Your task to perform on an android device: Empty the shopping cart on amazon.com. Add "usb-c to usb-a" to the cart on amazon.com Image 0: 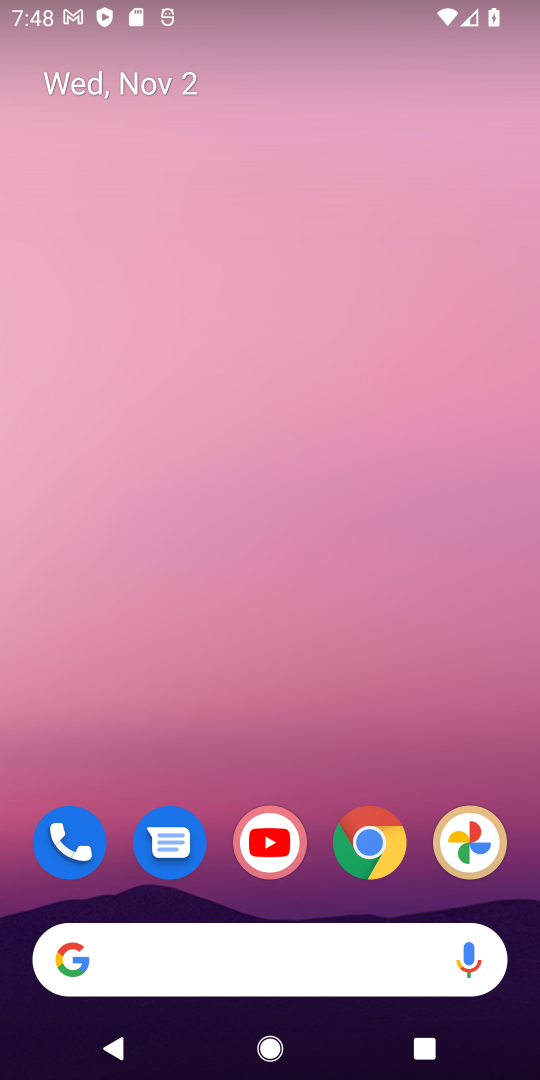
Step 0: drag from (237, 851) to (235, 120)
Your task to perform on an android device: Empty the shopping cart on amazon.com. Add "usb-c to usb-a" to the cart on amazon.com Image 1: 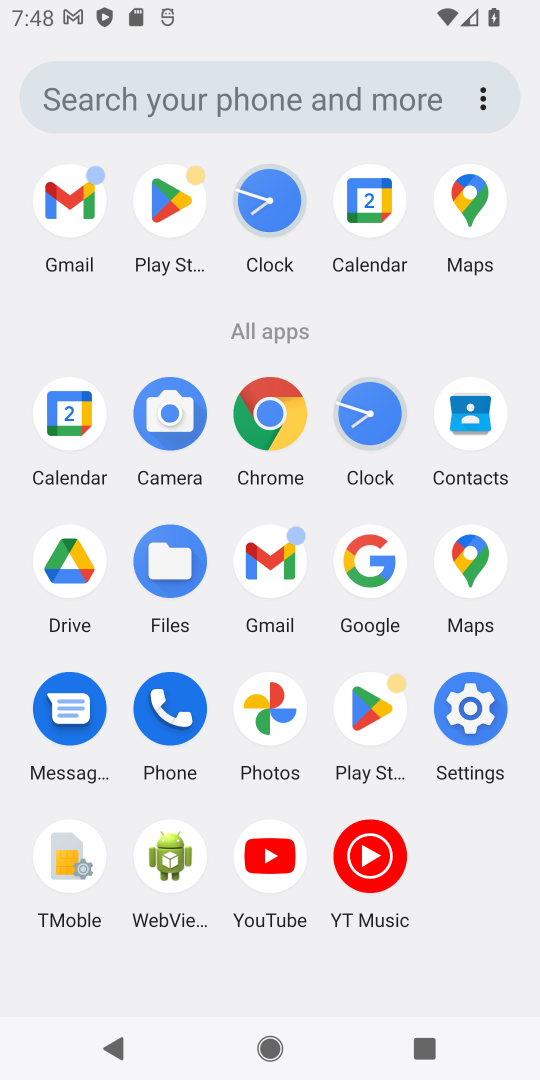
Step 1: click (369, 565)
Your task to perform on an android device: Empty the shopping cart on amazon.com. Add "usb-c to usb-a" to the cart on amazon.com Image 2: 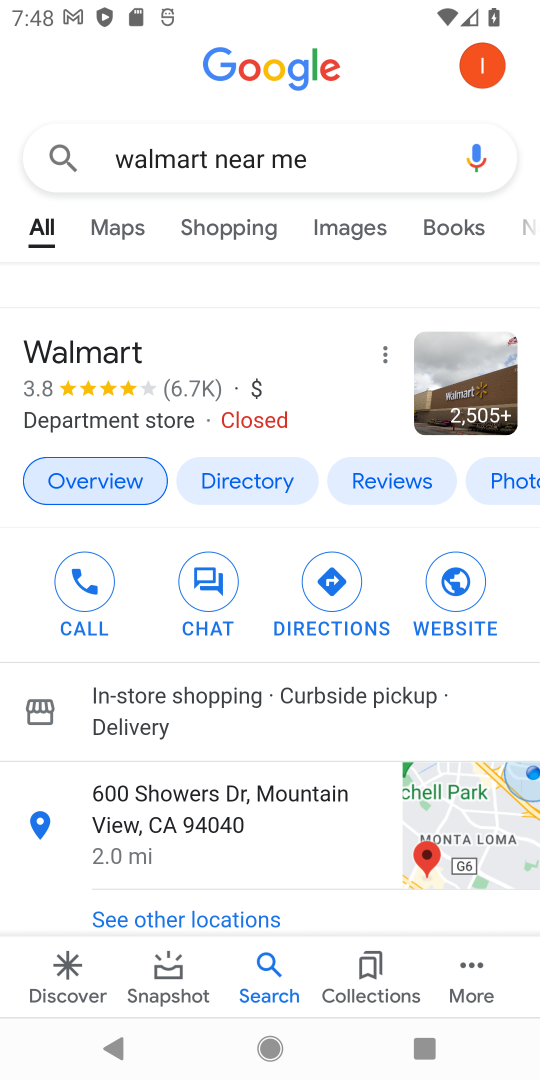
Step 2: click (273, 151)
Your task to perform on an android device: Empty the shopping cart on amazon.com. Add "usb-c to usb-a" to the cart on amazon.com Image 3: 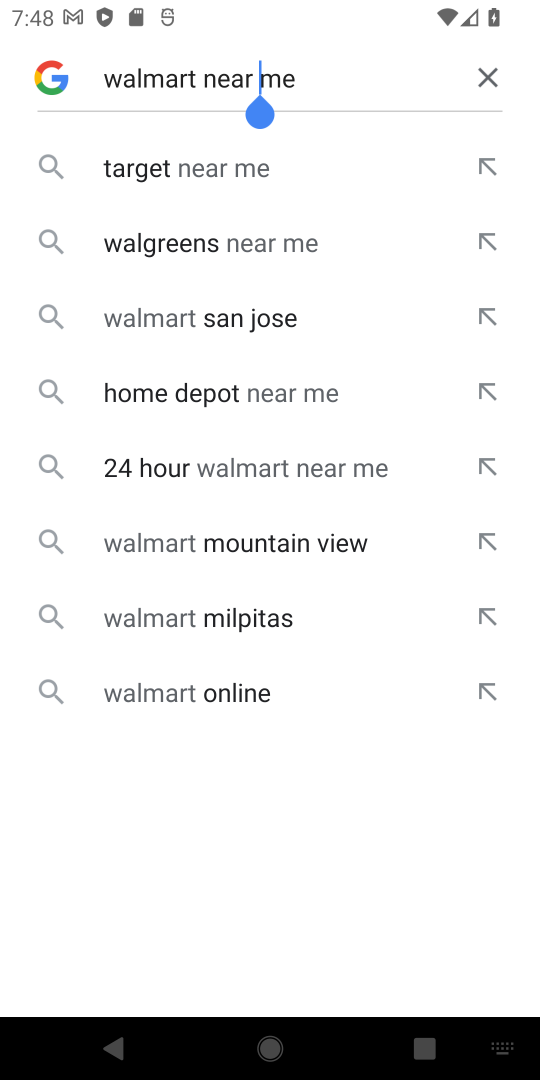
Step 3: click (491, 81)
Your task to perform on an android device: Empty the shopping cart on amazon.com. Add "usb-c to usb-a" to the cart on amazon.com Image 4: 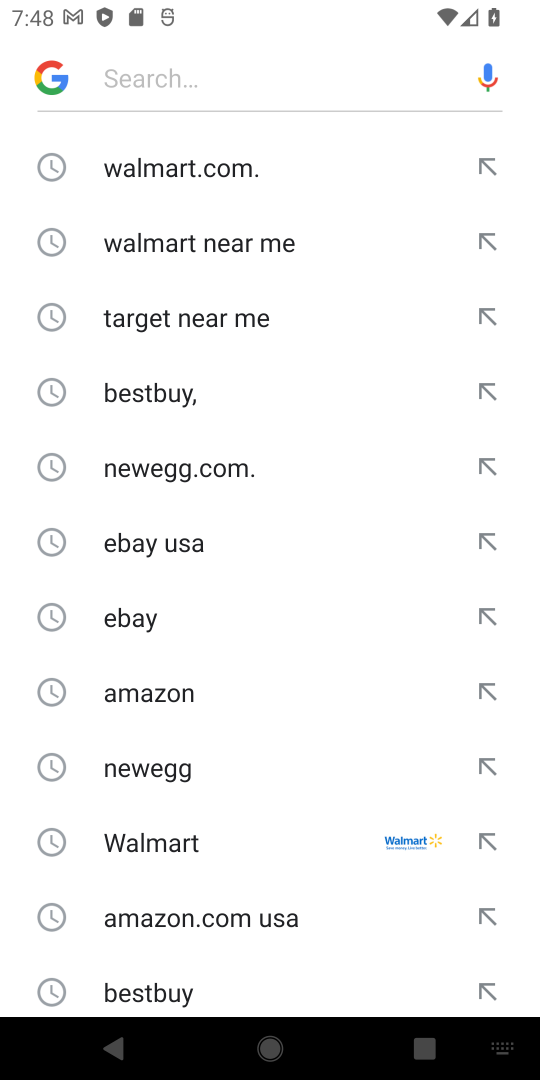
Step 4: click (102, 74)
Your task to perform on an android device: Empty the shopping cart on amazon.com. Add "usb-c to usb-a" to the cart on amazon.com Image 5: 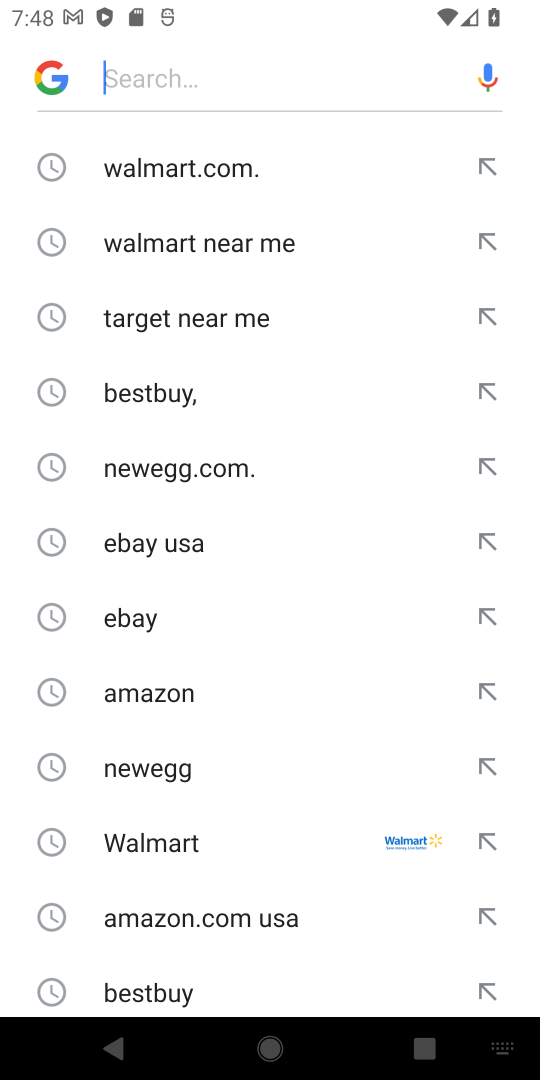
Step 5: type "amazon "
Your task to perform on an android device: Empty the shopping cart on amazon.com. Add "usb-c to usb-a" to the cart on amazon.com Image 6: 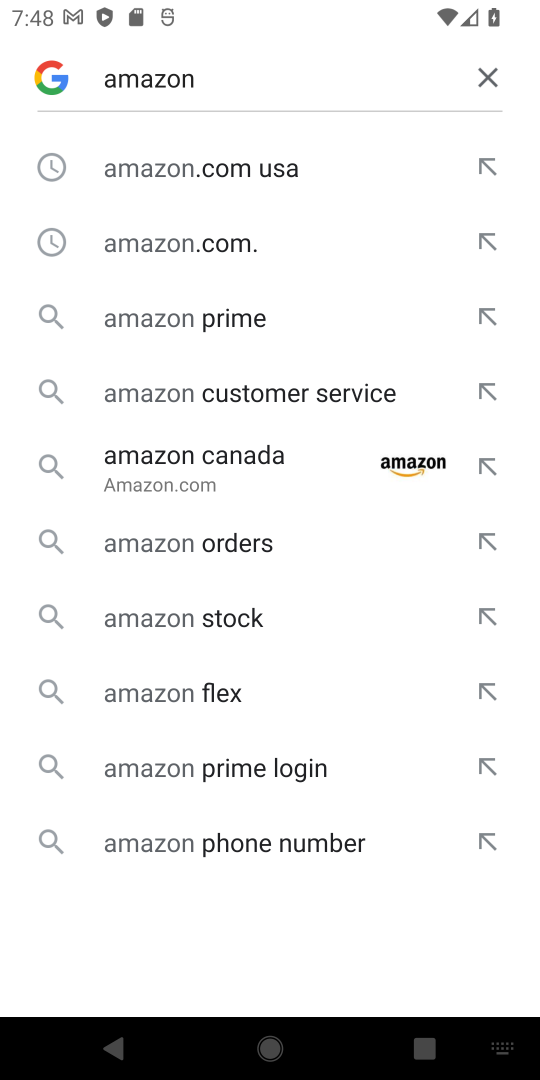
Step 6: click (253, 180)
Your task to perform on an android device: Empty the shopping cart on amazon.com. Add "usb-c to usb-a" to the cart on amazon.com Image 7: 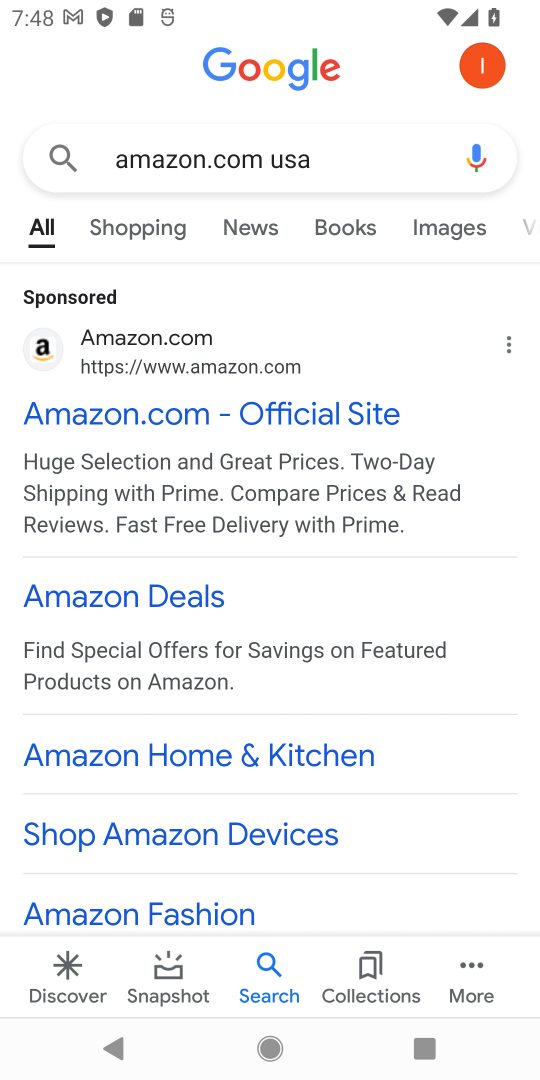
Step 7: click (184, 401)
Your task to perform on an android device: Empty the shopping cart on amazon.com. Add "usb-c to usb-a" to the cart on amazon.com Image 8: 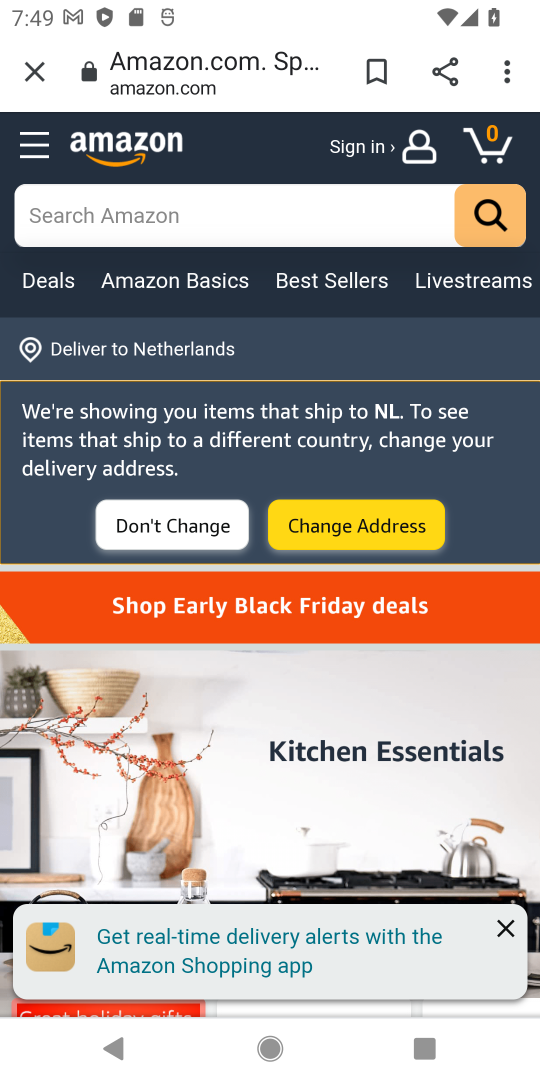
Step 8: click (508, 925)
Your task to perform on an android device: Empty the shopping cart on amazon.com. Add "usb-c to usb-a" to the cart on amazon.com Image 9: 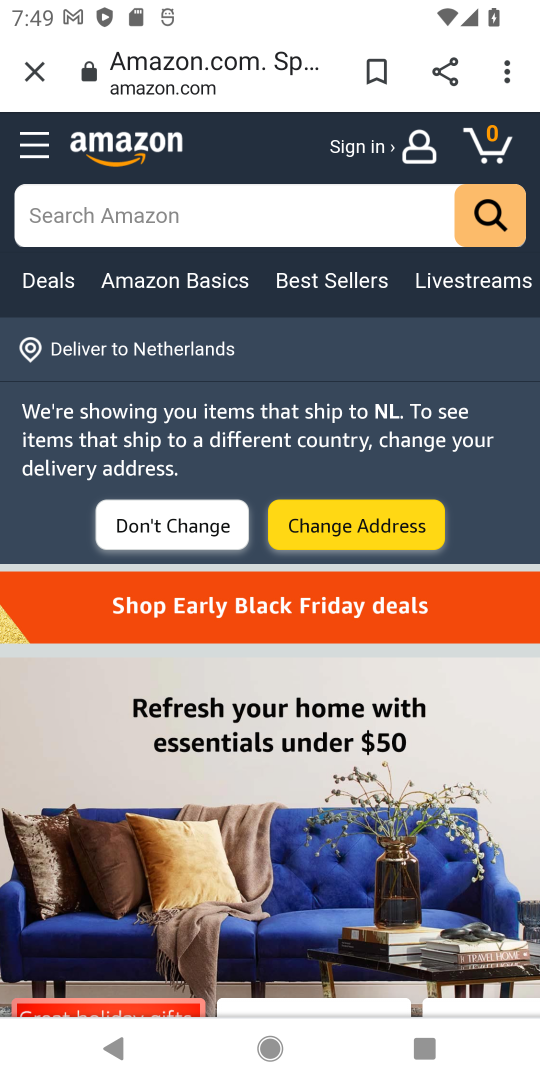
Step 9: click (206, 199)
Your task to perform on an android device: Empty the shopping cart on amazon.com. Add "usb-c to usb-a" to the cart on amazon.com Image 10: 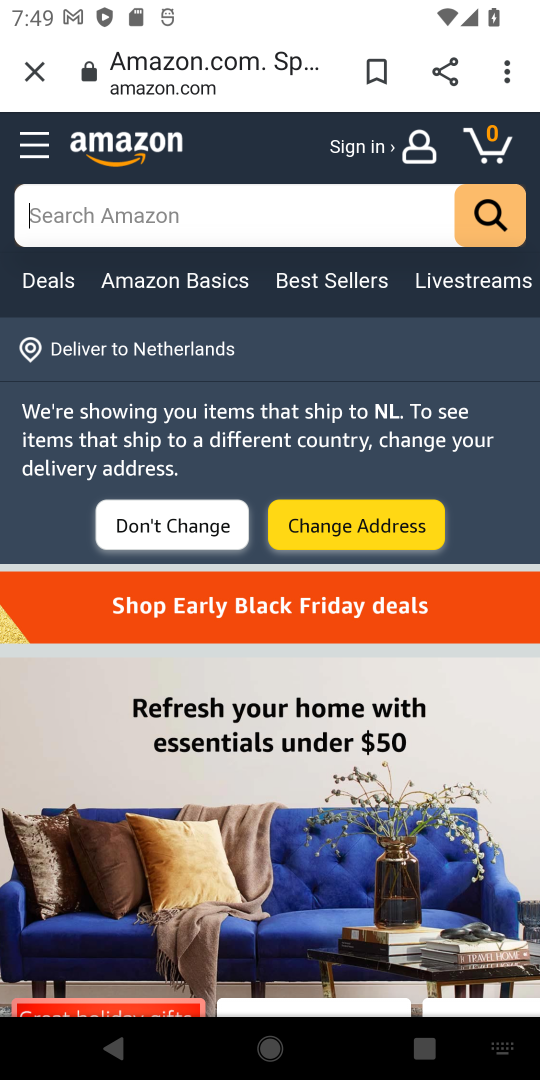
Step 10: type "usb-c to usb-a "
Your task to perform on an android device: Empty the shopping cart on amazon.com. Add "usb-c to usb-a" to the cart on amazon.com Image 11: 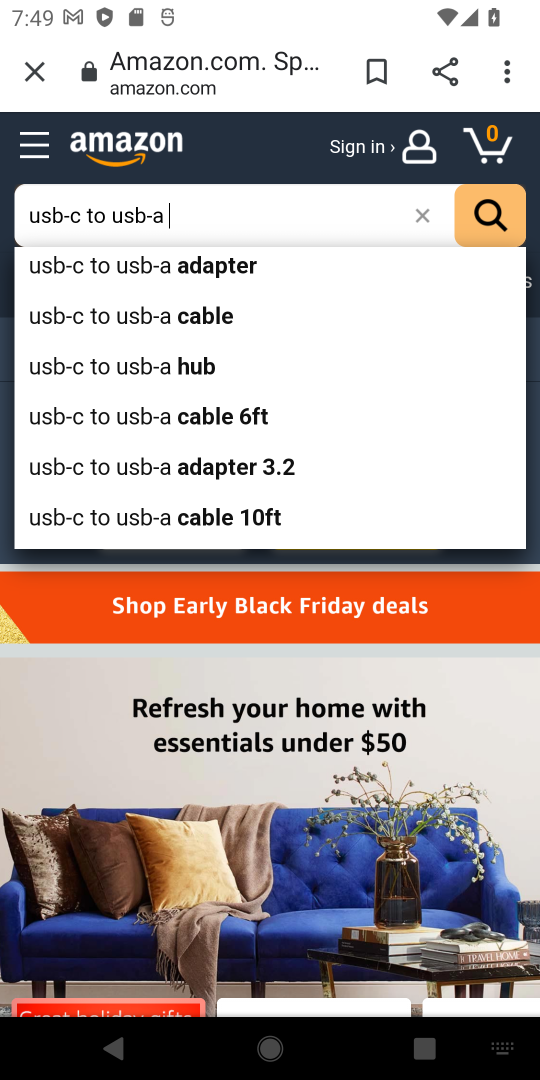
Step 11: click (236, 325)
Your task to perform on an android device: Empty the shopping cart on amazon.com. Add "usb-c to usb-a" to the cart on amazon.com Image 12: 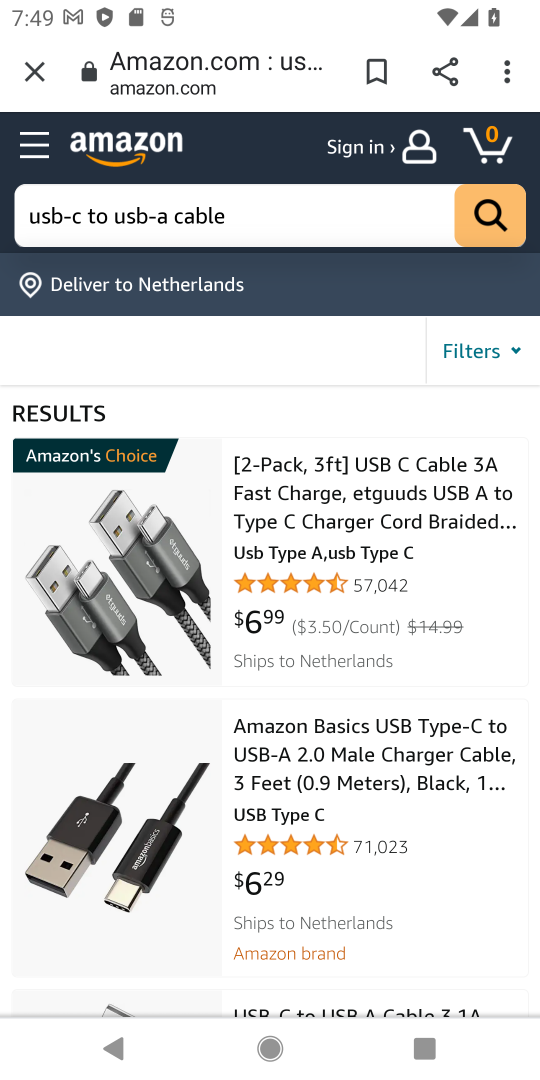
Step 12: click (281, 512)
Your task to perform on an android device: Empty the shopping cart on amazon.com. Add "usb-c to usb-a" to the cart on amazon.com Image 13: 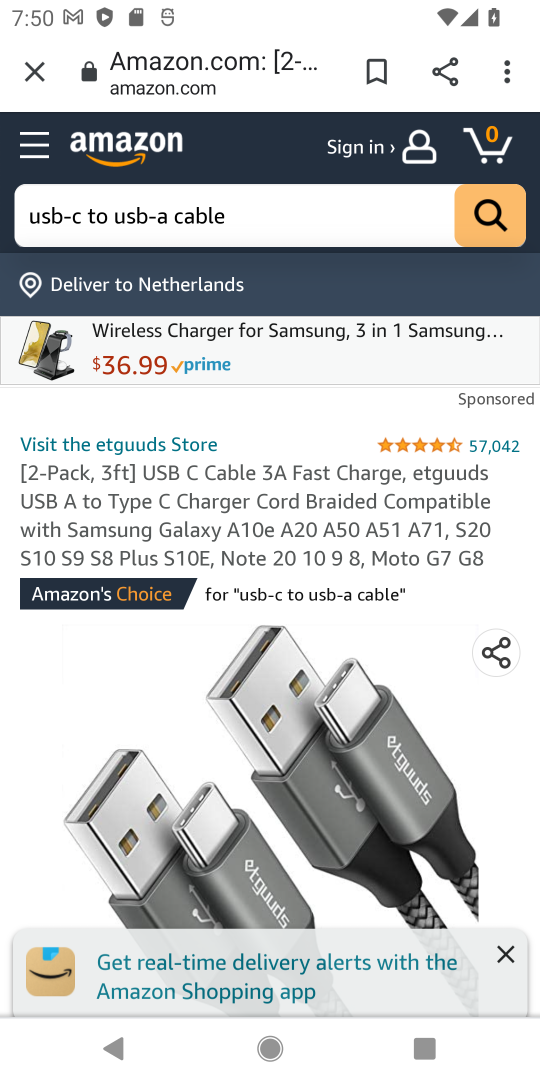
Step 13: drag from (332, 839) to (308, 286)
Your task to perform on an android device: Empty the shopping cart on amazon.com. Add "usb-c to usb-a" to the cart on amazon.com Image 14: 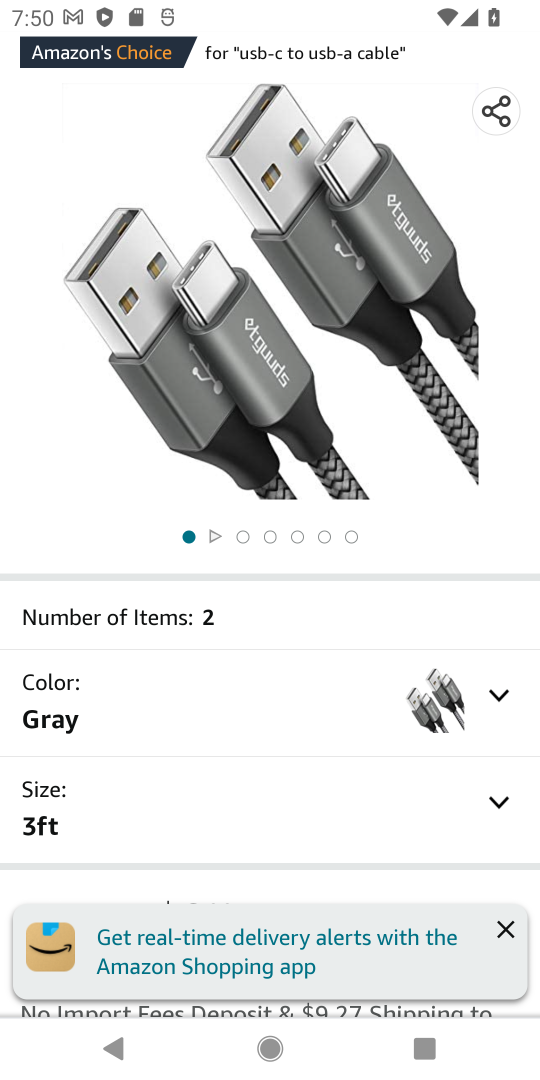
Step 14: click (506, 923)
Your task to perform on an android device: Empty the shopping cart on amazon.com. Add "usb-c to usb-a" to the cart on amazon.com Image 15: 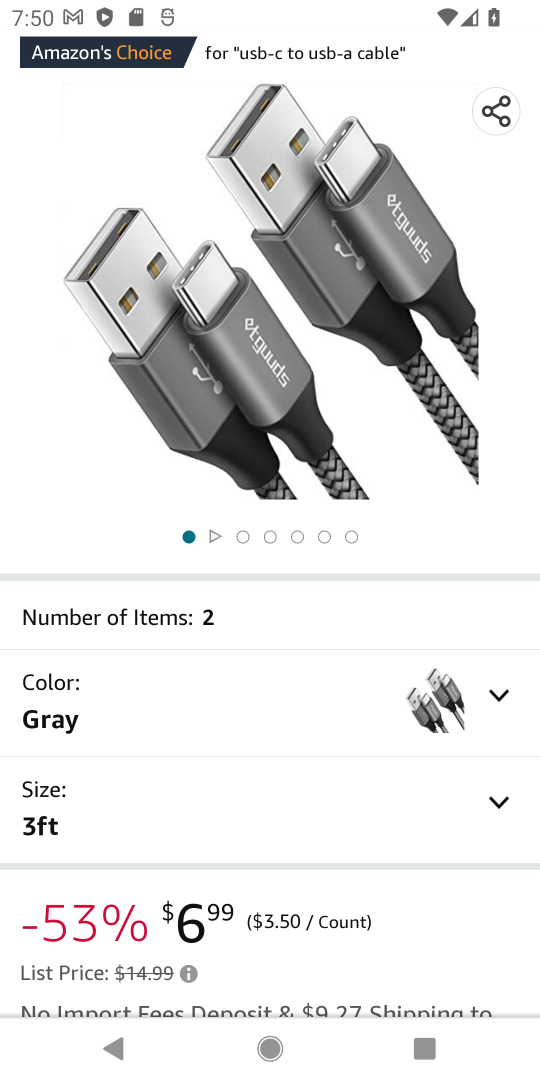
Step 15: drag from (285, 923) to (295, 356)
Your task to perform on an android device: Empty the shopping cart on amazon.com. Add "usb-c to usb-a" to the cart on amazon.com Image 16: 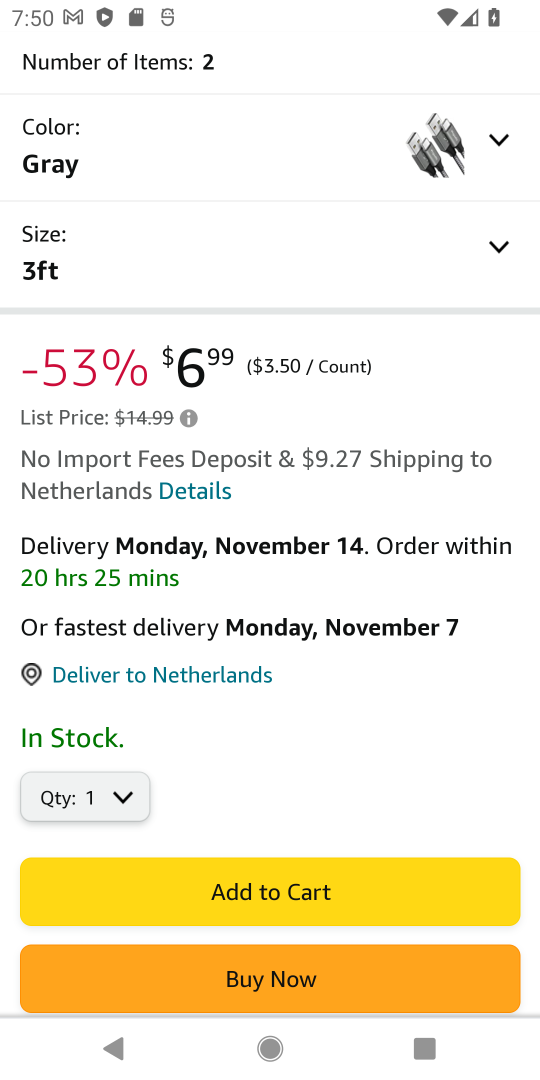
Step 16: click (352, 875)
Your task to perform on an android device: Empty the shopping cart on amazon.com. Add "usb-c to usb-a" to the cart on amazon.com Image 17: 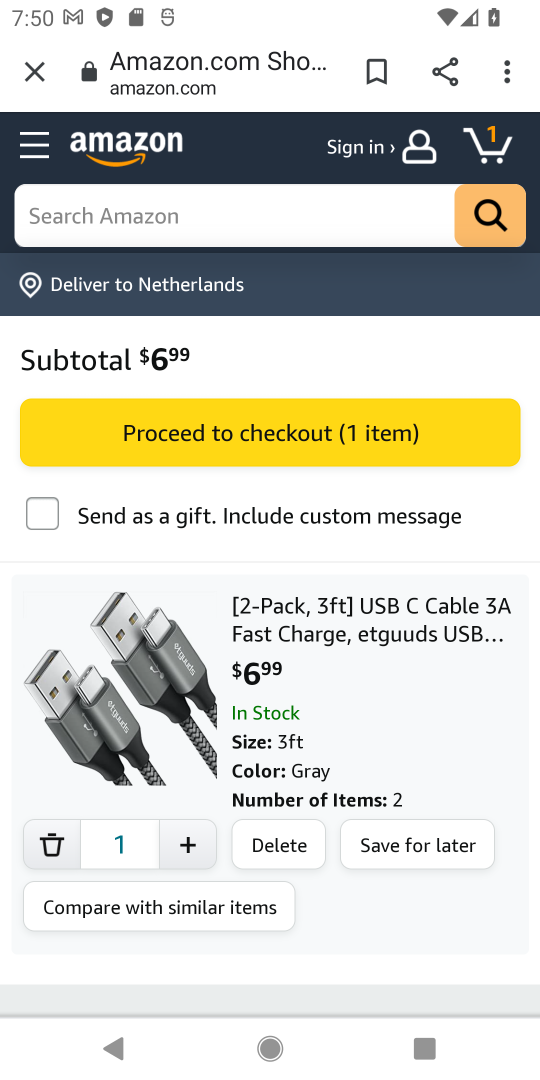
Step 17: task complete